Your task to perform on an android device: uninstall "NewsBreak: Local News & Alerts" Image 0: 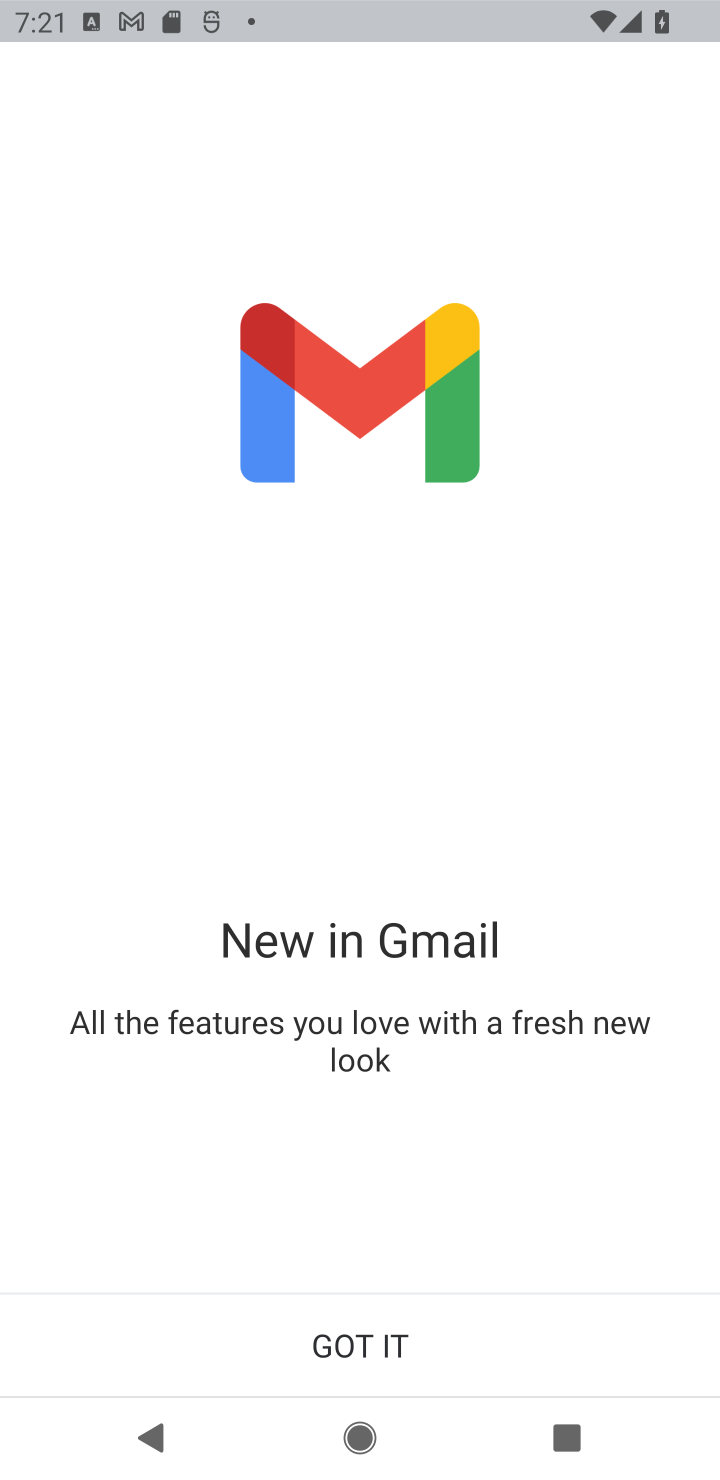
Step 0: press home button
Your task to perform on an android device: uninstall "NewsBreak: Local News & Alerts" Image 1: 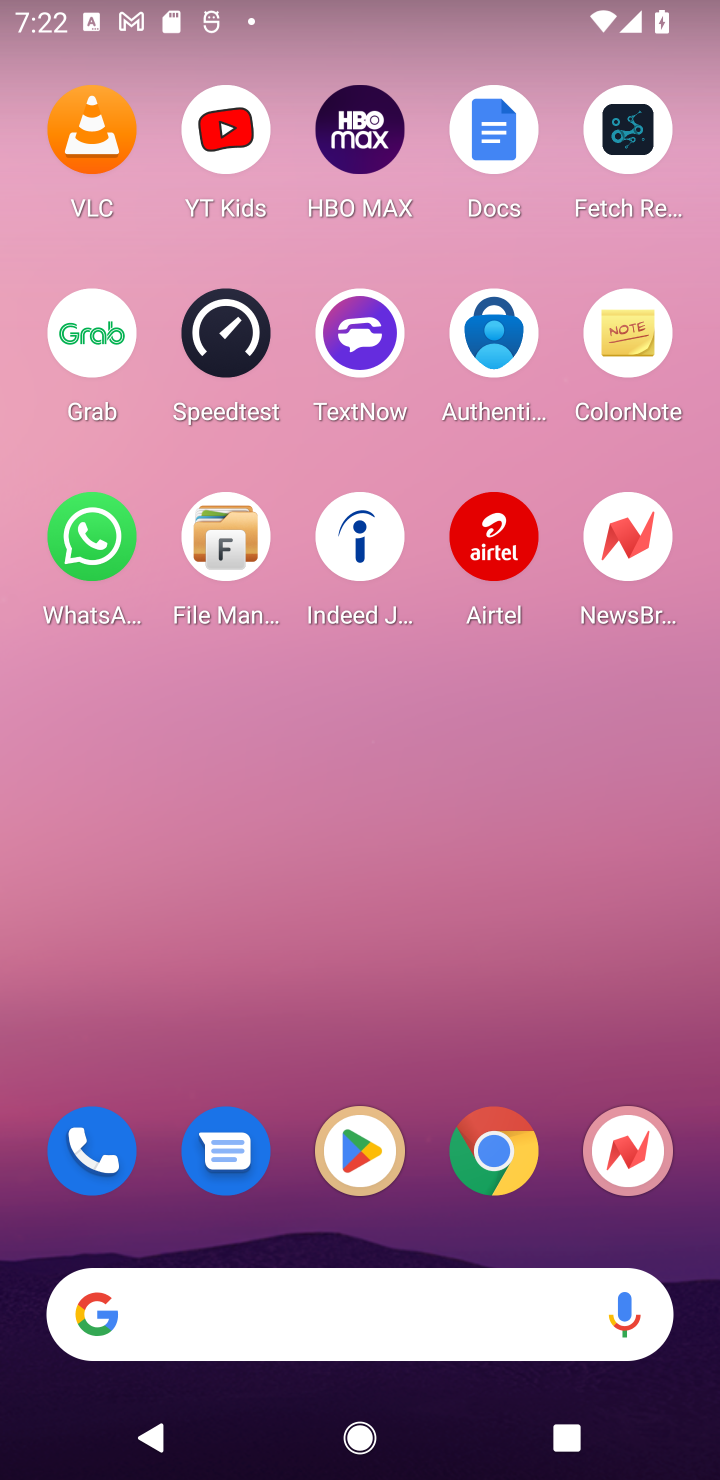
Step 1: press home button
Your task to perform on an android device: uninstall "NewsBreak: Local News & Alerts" Image 2: 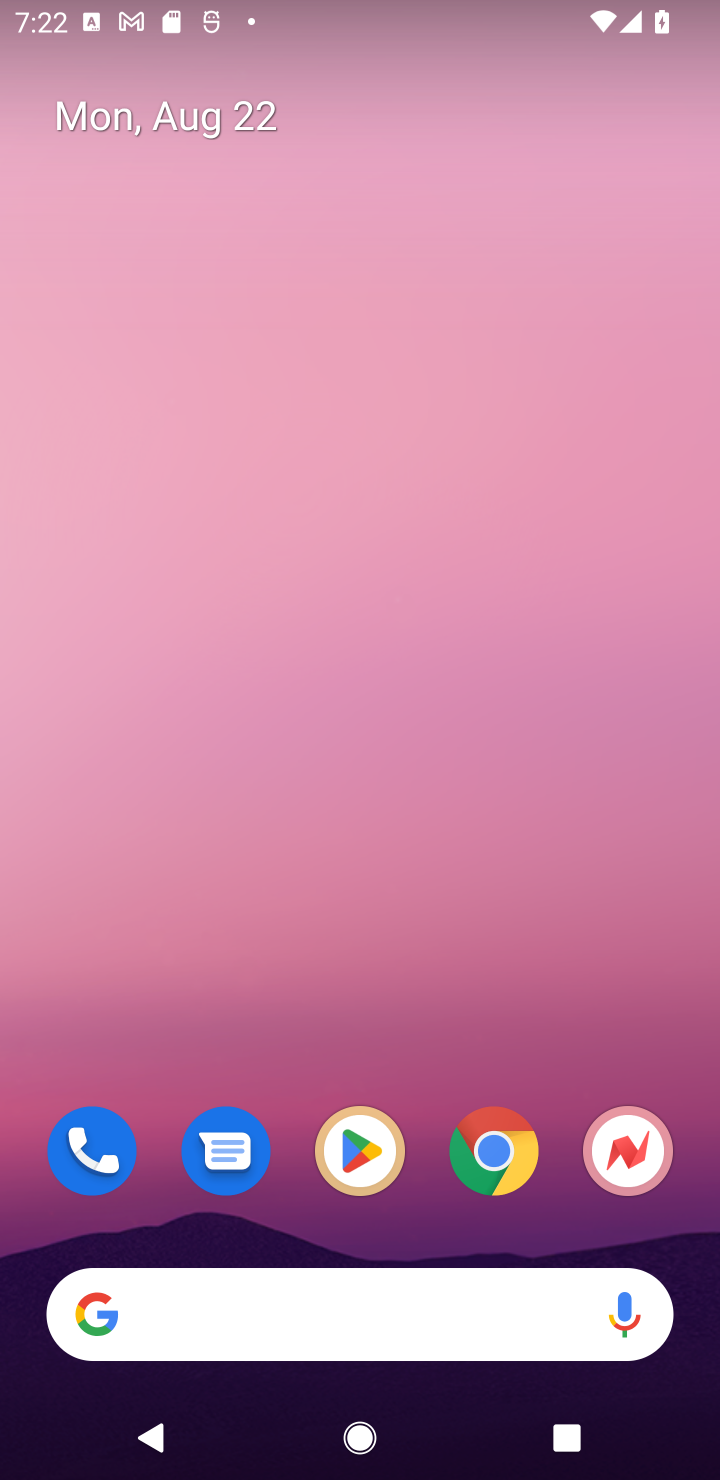
Step 2: click (354, 1152)
Your task to perform on an android device: uninstall "NewsBreak: Local News & Alerts" Image 3: 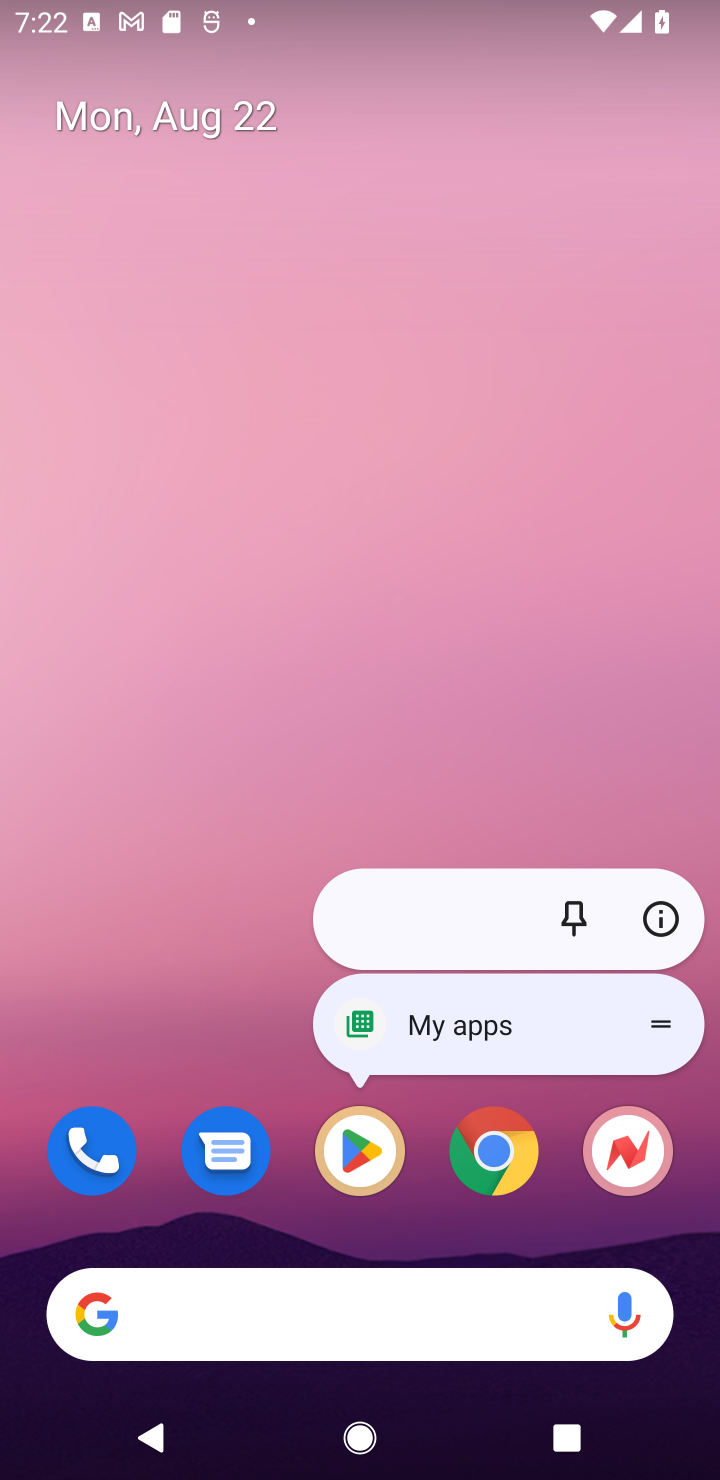
Step 3: click (354, 1153)
Your task to perform on an android device: uninstall "NewsBreak: Local News & Alerts" Image 4: 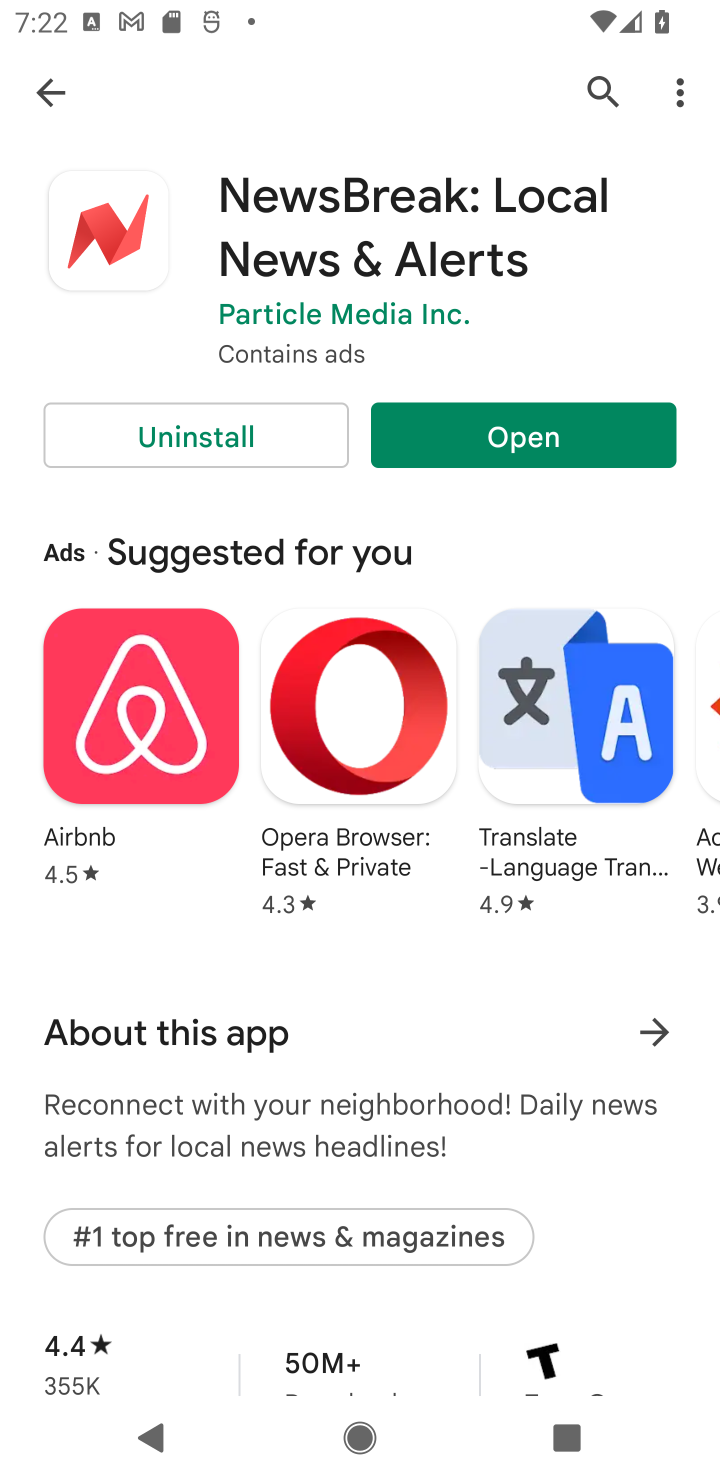
Step 4: click (598, 86)
Your task to perform on an android device: uninstall "NewsBreak: Local News & Alerts" Image 5: 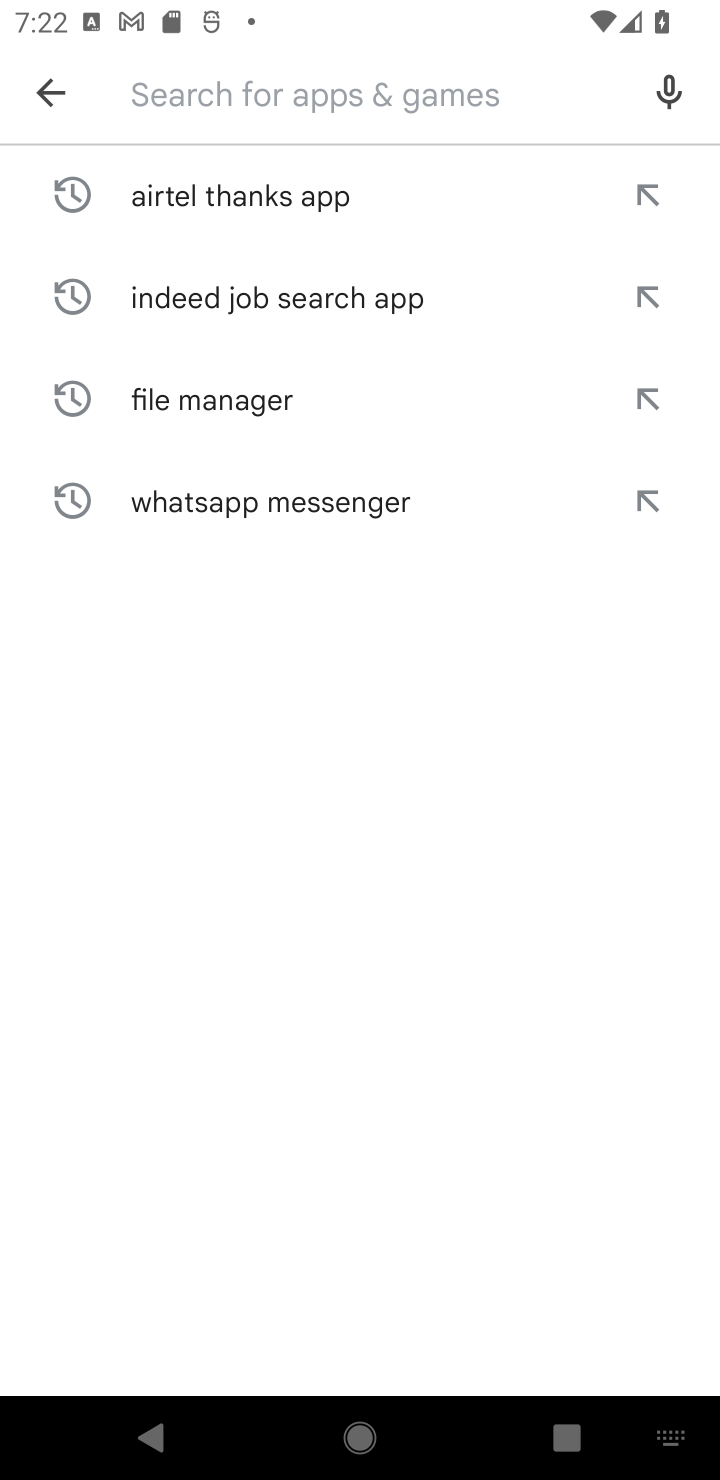
Step 5: type "NewsBreak: Local News & Alerts"
Your task to perform on an android device: uninstall "NewsBreak: Local News & Alerts" Image 6: 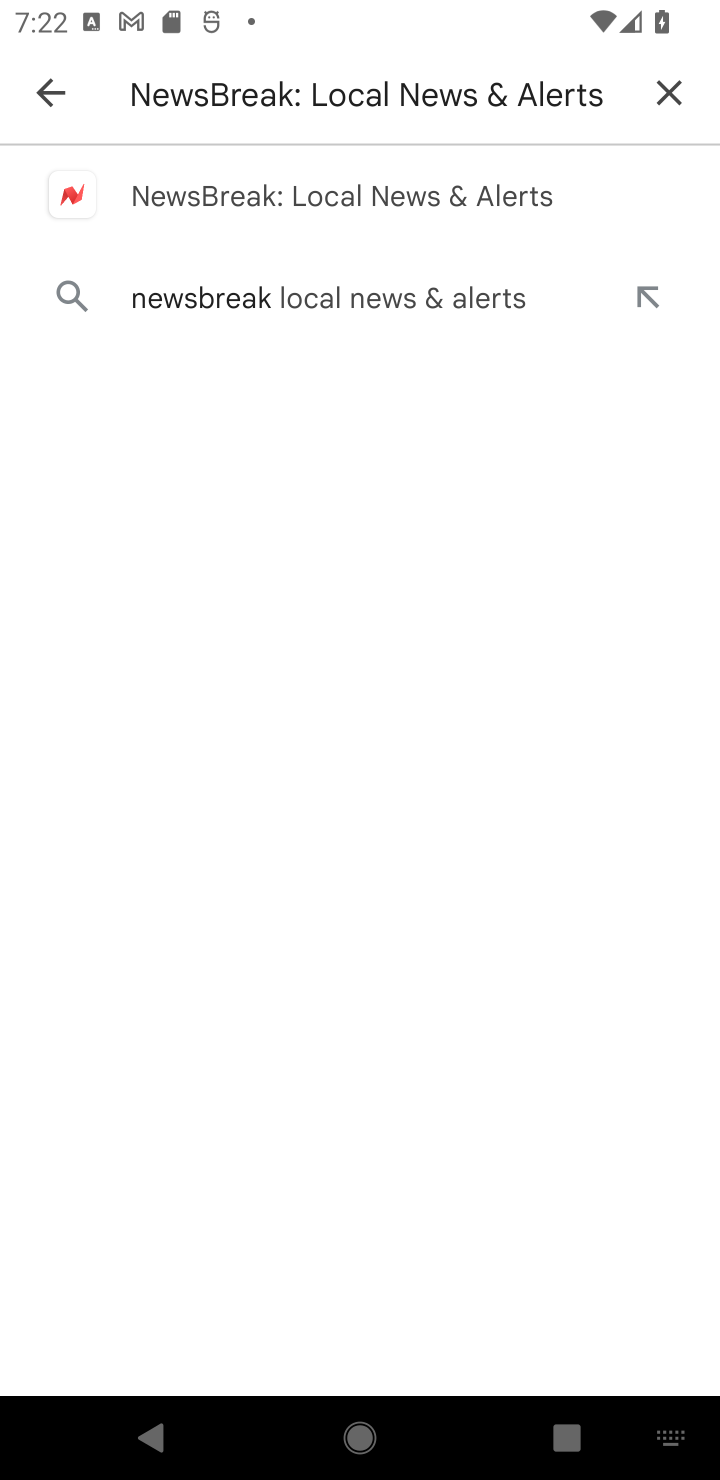
Step 6: click (295, 181)
Your task to perform on an android device: uninstall "NewsBreak: Local News & Alerts" Image 7: 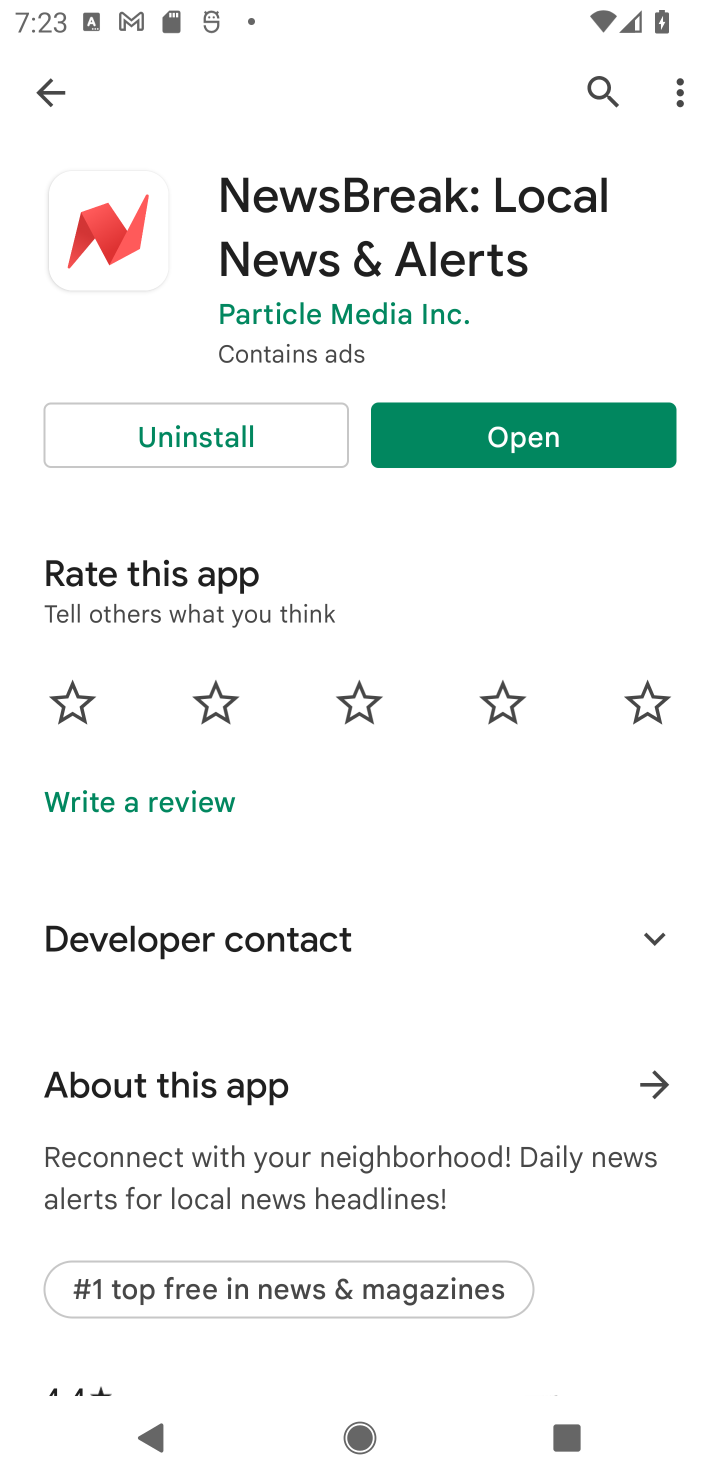
Step 7: click (228, 438)
Your task to perform on an android device: uninstall "NewsBreak: Local News & Alerts" Image 8: 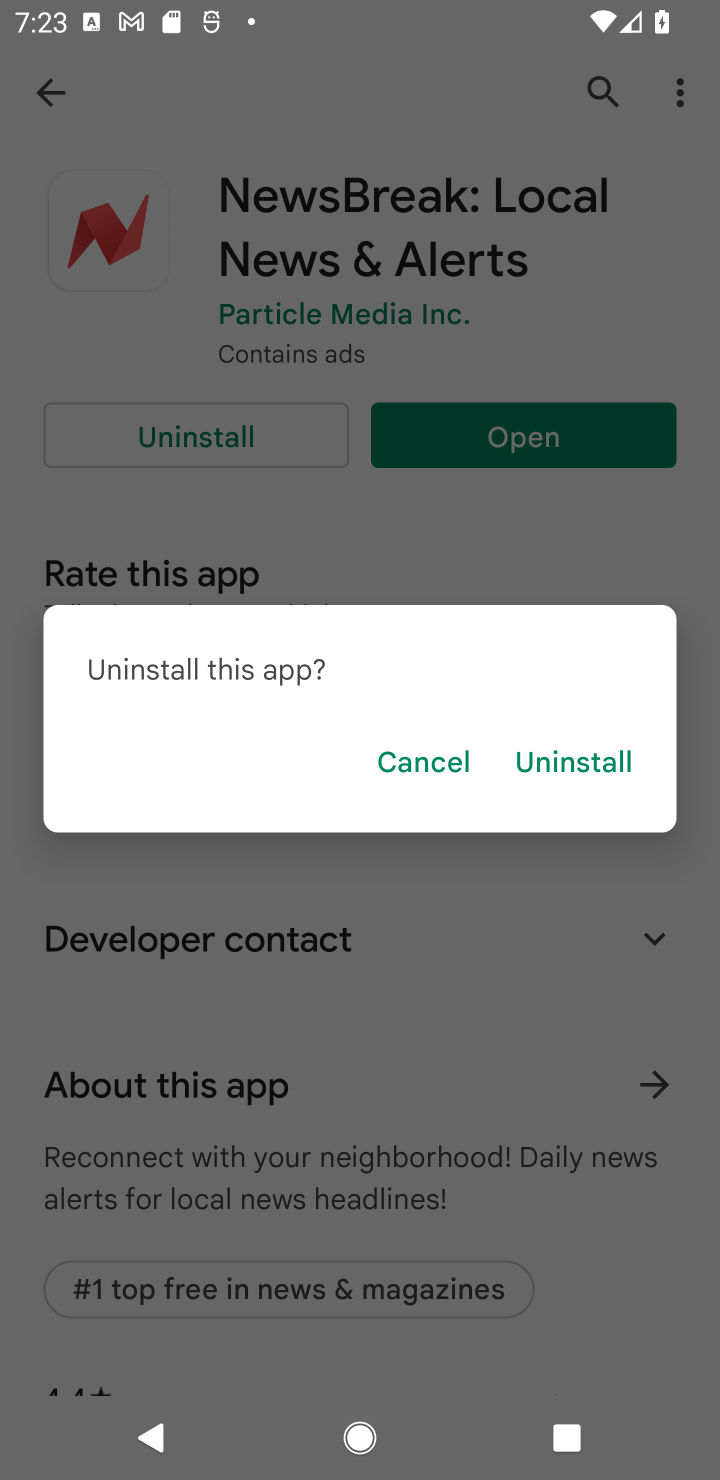
Step 8: click (542, 766)
Your task to perform on an android device: uninstall "NewsBreak: Local News & Alerts" Image 9: 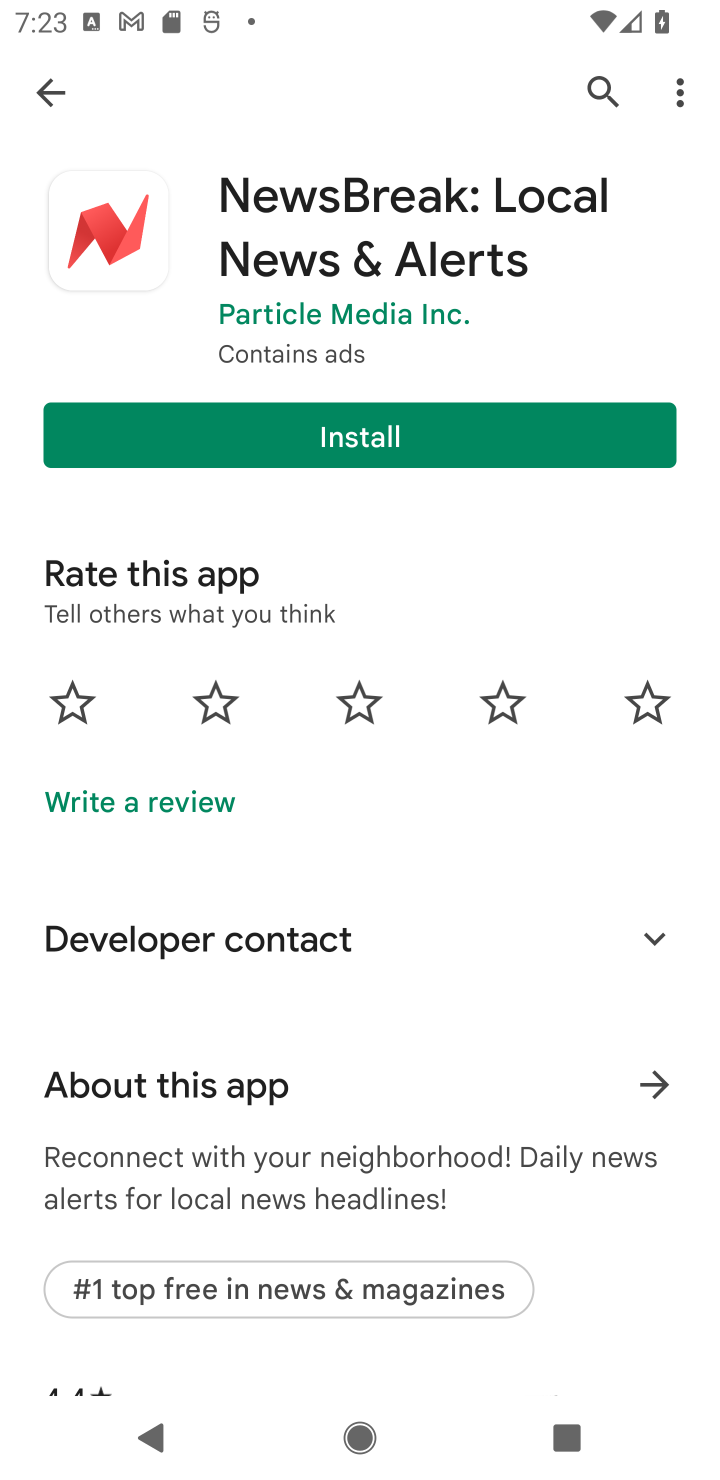
Step 9: task complete